Your task to perform on an android device: Open calendar and show me the fourth week of next month Image 0: 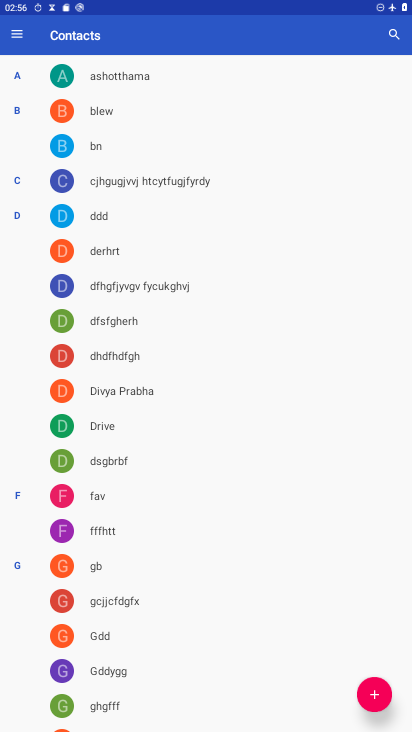
Step 0: press home button
Your task to perform on an android device: Open calendar and show me the fourth week of next month Image 1: 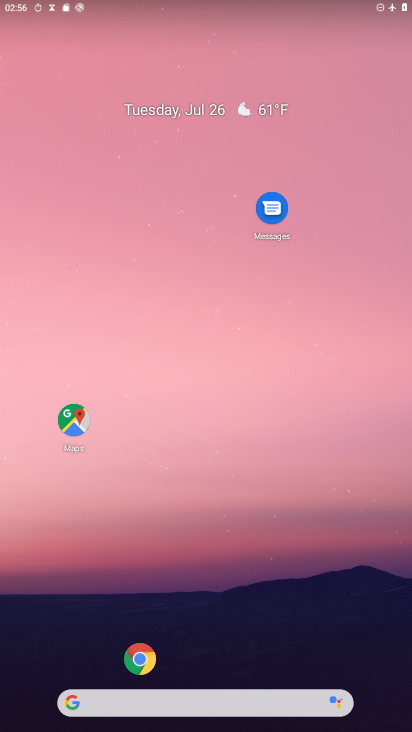
Step 1: drag from (182, 394) to (240, 245)
Your task to perform on an android device: Open calendar and show me the fourth week of next month Image 2: 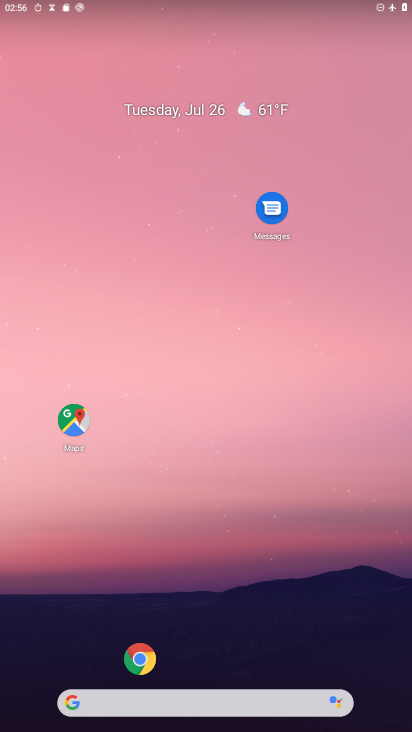
Step 2: drag from (43, 696) to (139, 173)
Your task to perform on an android device: Open calendar and show me the fourth week of next month Image 3: 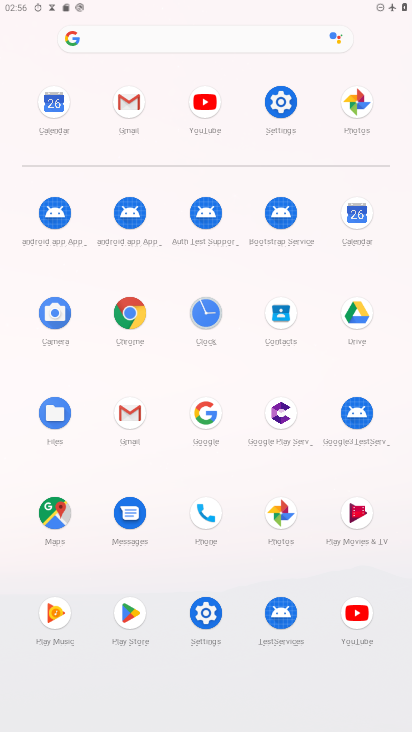
Step 3: click (358, 206)
Your task to perform on an android device: Open calendar and show me the fourth week of next month Image 4: 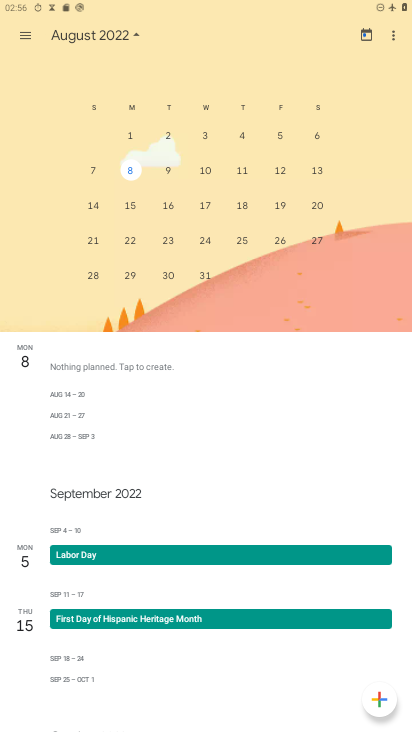
Step 4: click (129, 241)
Your task to perform on an android device: Open calendar and show me the fourth week of next month Image 5: 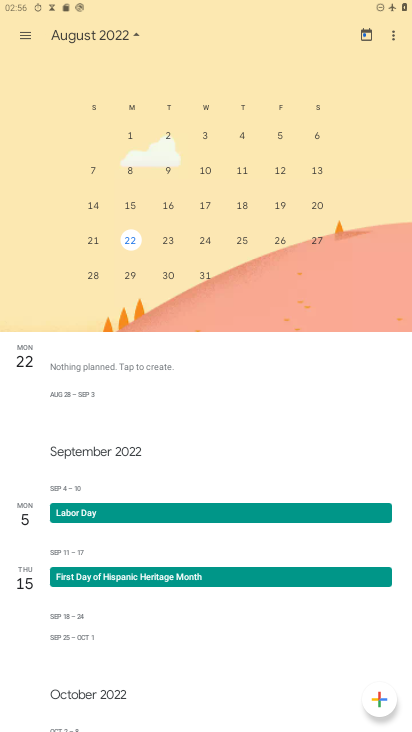
Step 5: task complete